Your task to perform on an android device: What's the weather today? Image 0: 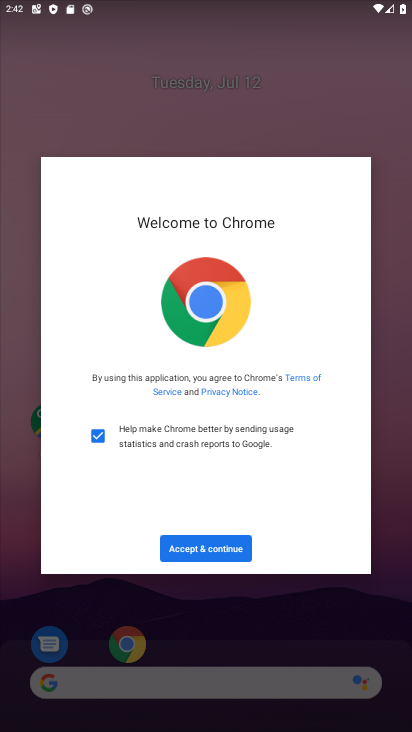
Step 0: press home button
Your task to perform on an android device: What's the weather today? Image 1: 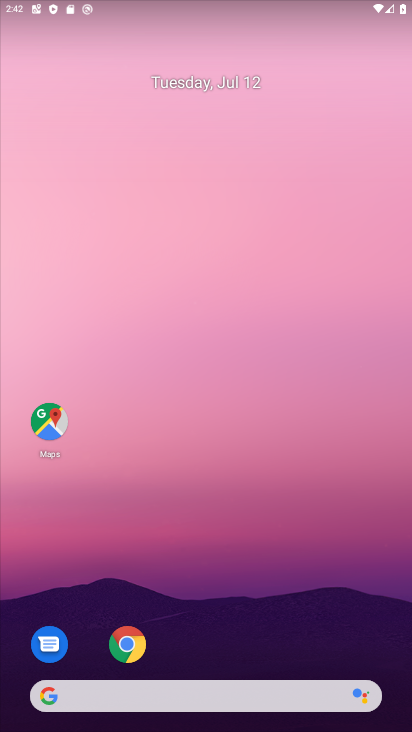
Step 1: click (264, 697)
Your task to perform on an android device: What's the weather today? Image 2: 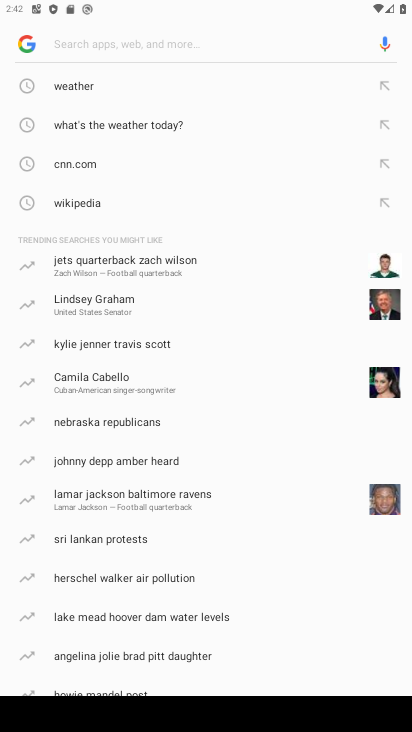
Step 2: click (103, 92)
Your task to perform on an android device: What's the weather today? Image 3: 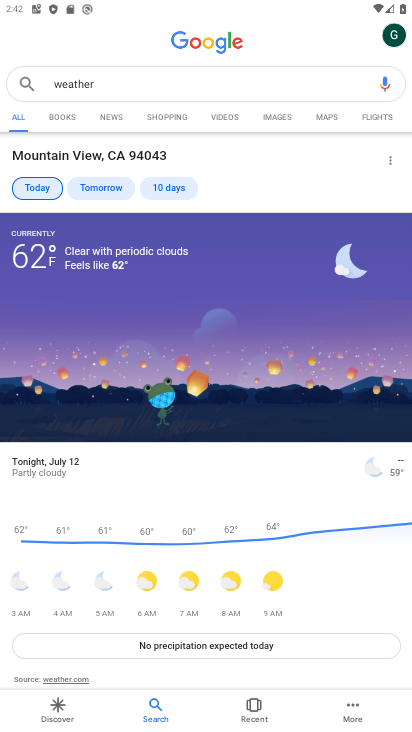
Step 3: task complete